Your task to perform on an android device: Open Google Image 0: 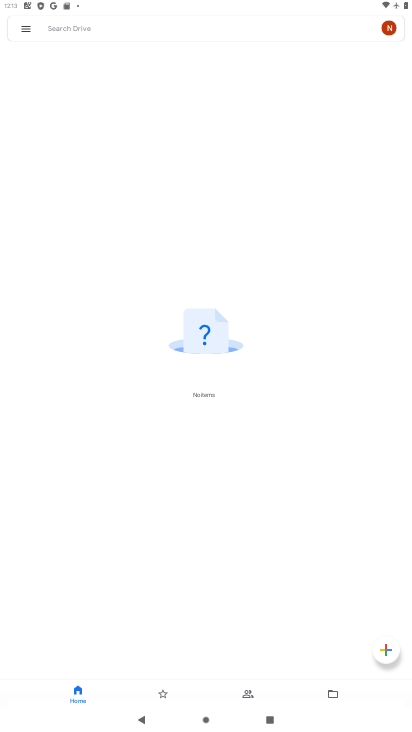
Step 0: press home button
Your task to perform on an android device: Open Google Image 1: 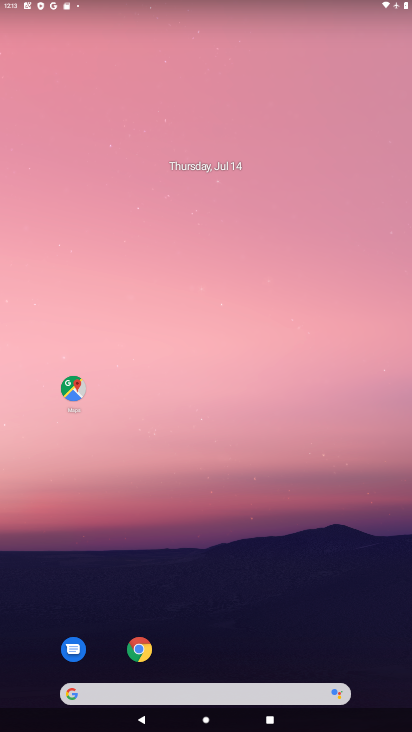
Step 1: drag from (194, 637) to (258, 244)
Your task to perform on an android device: Open Google Image 2: 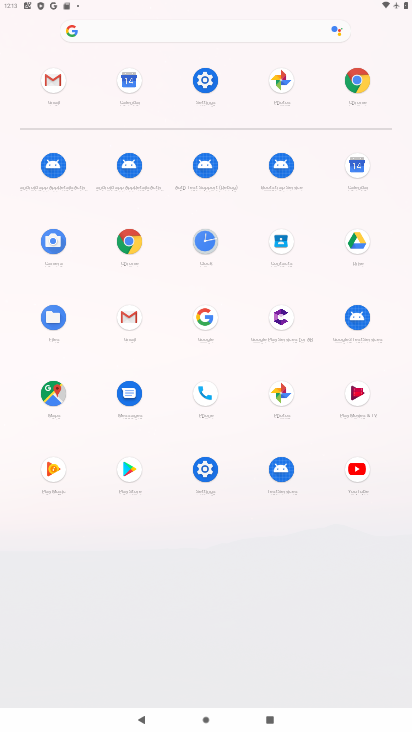
Step 2: click (195, 313)
Your task to perform on an android device: Open Google Image 3: 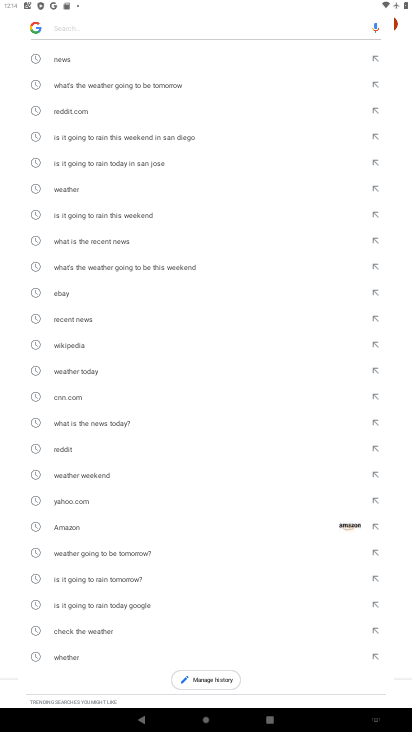
Step 3: task complete